Your task to perform on an android device: turn on the 24-hour format for clock Image 0: 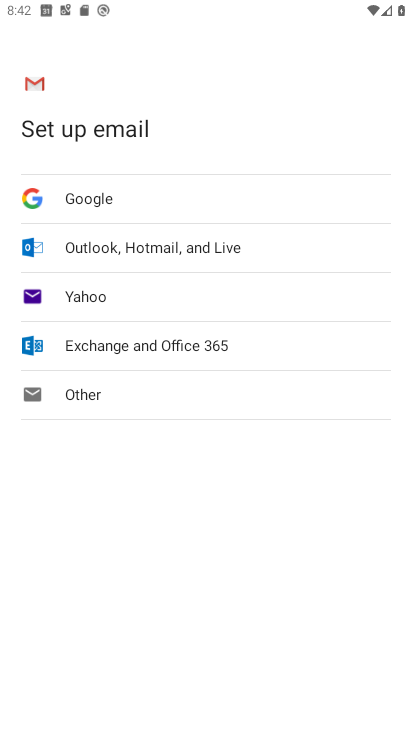
Step 0: press home button
Your task to perform on an android device: turn on the 24-hour format for clock Image 1: 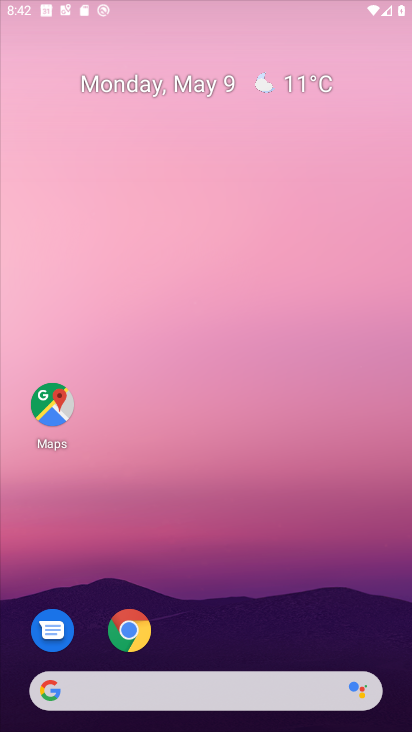
Step 1: drag from (244, 527) to (308, 97)
Your task to perform on an android device: turn on the 24-hour format for clock Image 2: 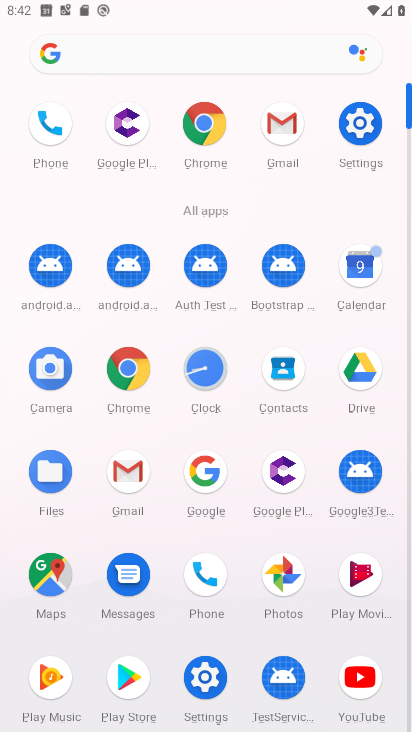
Step 2: click (205, 376)
Your task to perform on an android device: turn on the 24-hour format for clock Image 3: 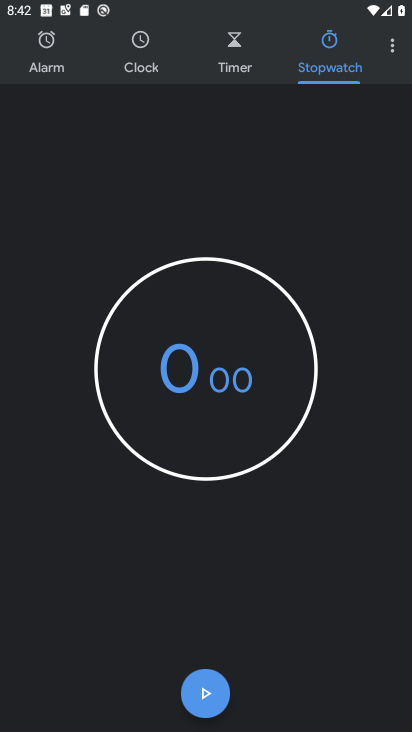
Step 3: click (390, 45)
Your task to perform on an android device: turn on the 24-hour format for clock Image 4: 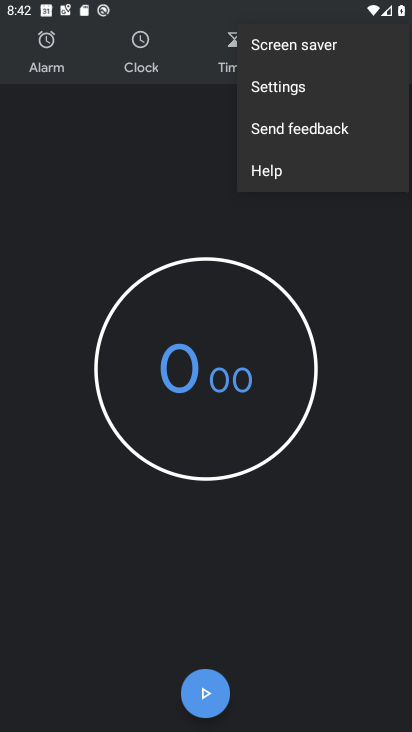
Step 4: click (325, 92)
Your task to perform on an android device: turn on the 24-hour format for clock Image 5: 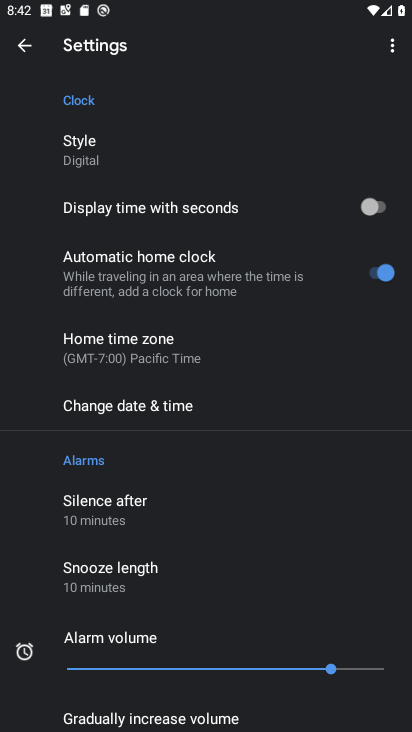
Step 5: drag from (133, 615) to (218, 174)
Your task to perform on an android device: turn on the 24-hour format for clock Image 6: 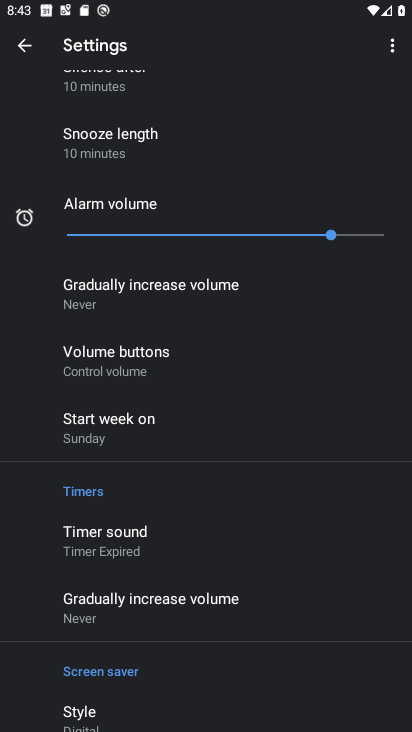
Step 6: drag from (218, 174) to (95, 685)
Your task to perform on an android device: turn on the 24-hour format for clock Image 7: 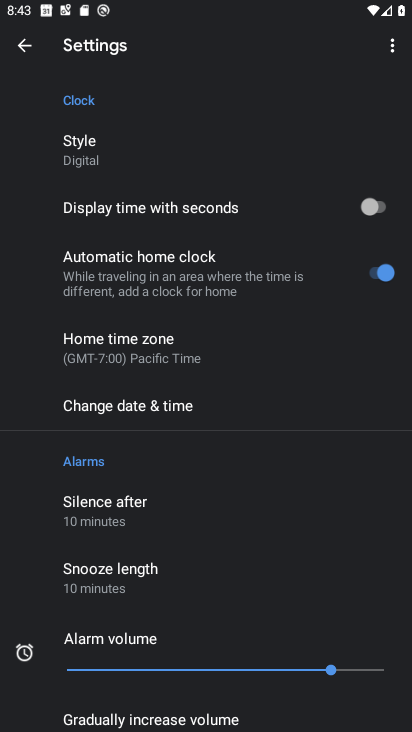
Step 7: drag from (223, 197) to (225, 277)
Your task to perform on an android device: turn on the 24-hour format for clock Image 8: 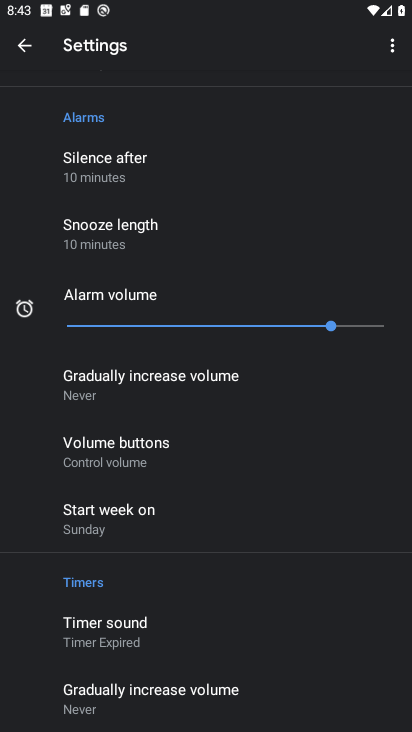
Step 8: drag from (136, 584) to (232, 196)
Your task to perform on an android device: turn on the 24-hour format for clock Image 9: 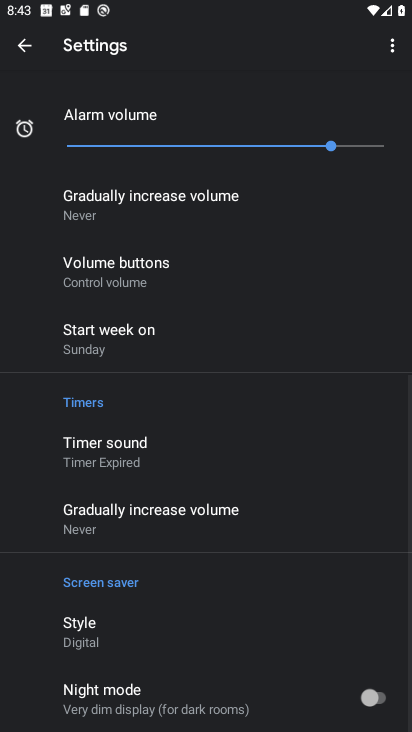
Step 9: drag from (206, 600) to (254, 345)
Your task to perform on an android device: turn on the 24-hour format for clock Image 10: 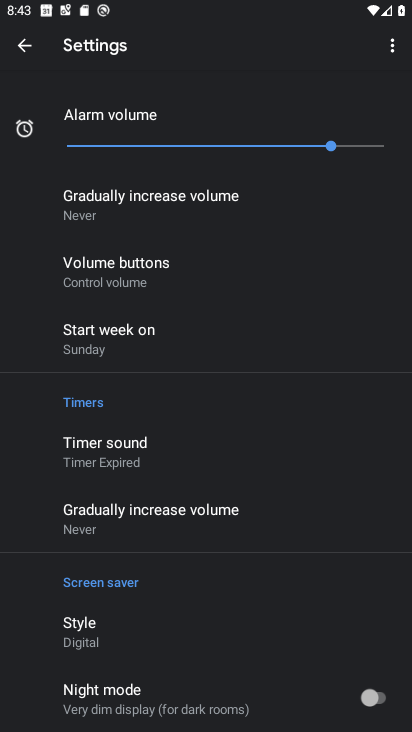
Step 10: drag from (260, 382) to (221, 594)
Your task to perform on an android device: turn on the 24-hour format for clock Image 11: 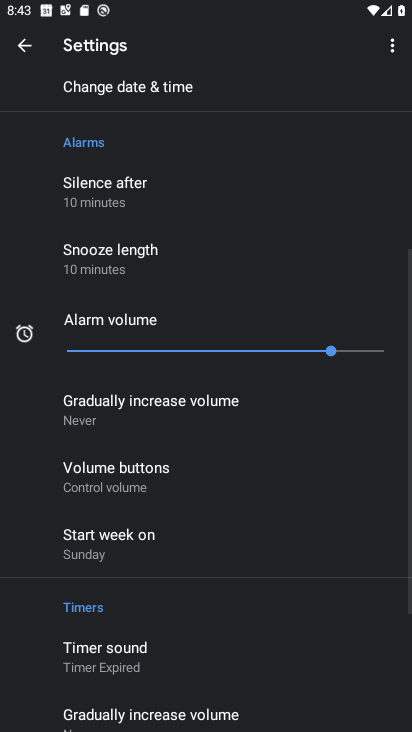
Step 11: drag from (214, 269) to (156, 605)
Your task to perform on an android device: turn on the 24-hour format for clock Image 12: 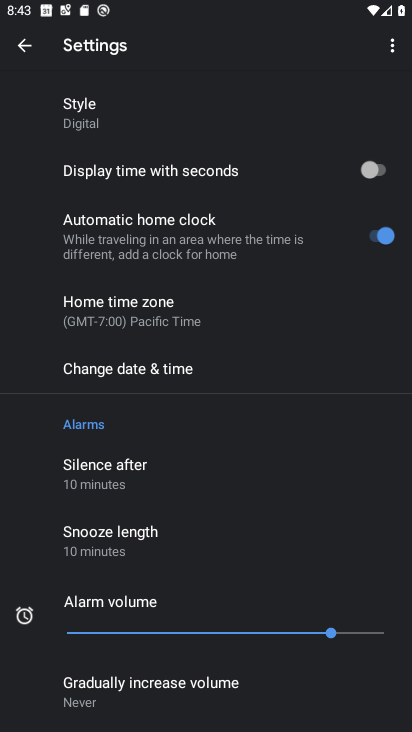
Step 12: click (185, 367)
Your task to perform on an android device: turn on the 24-hour format for clock Image 13: 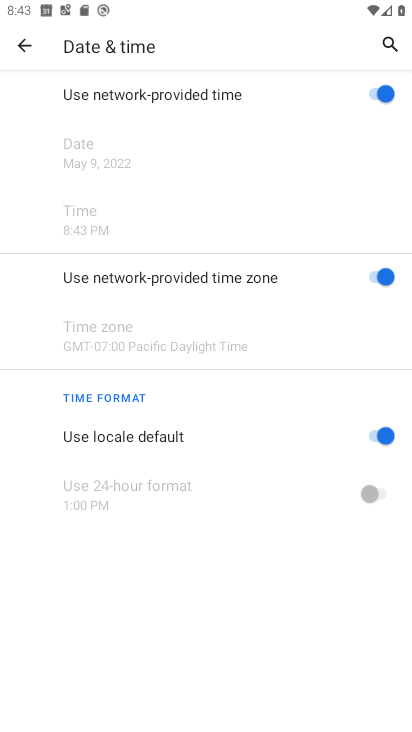
Step 13: click (389, 426)
Your task to perform on an android device: turn on the 24-hour format for clock Image 14: 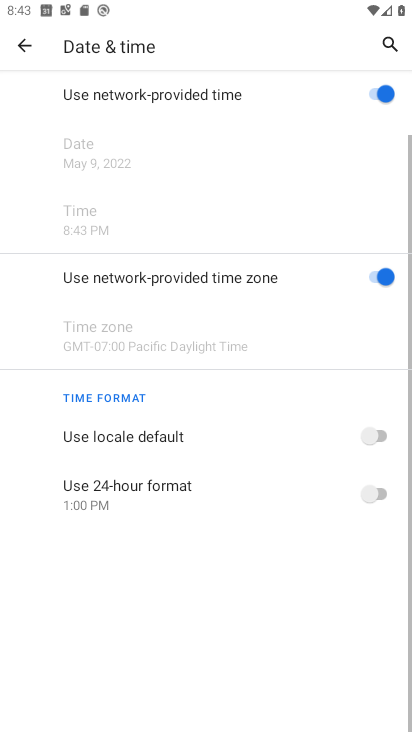
Step 14: click (374, 497)
Your task to perform on an android device: turn on the 24-hour format for clock Image 15: 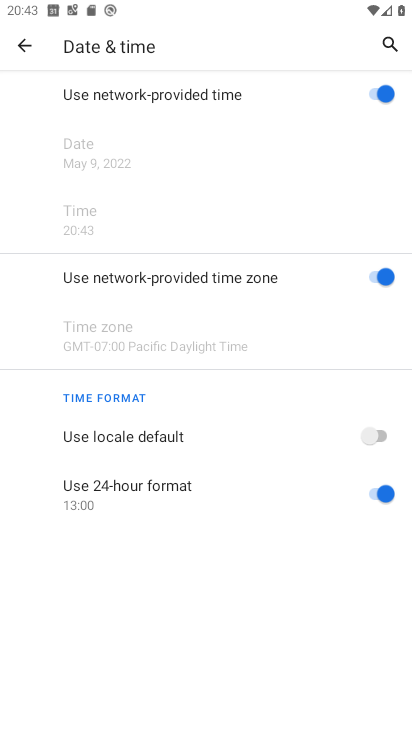
Step 15: task complete